Your task to perform on an android device: find which apps use the phone's location Image 0: 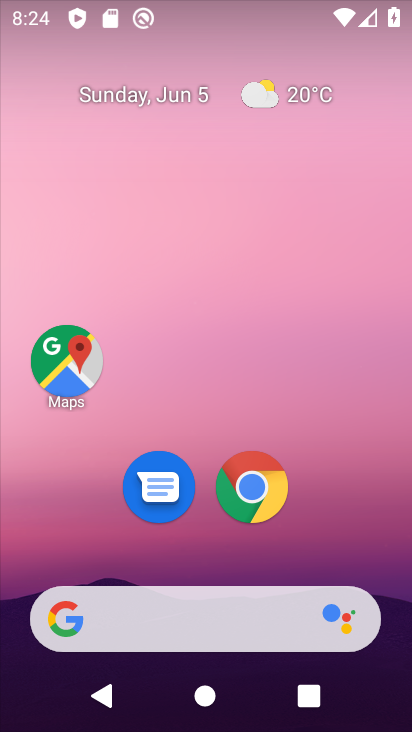
Step 0: drag from (344, 623) to (278, 98)
Your task to perform on an android device: find which apps use the phone's location Image 1: 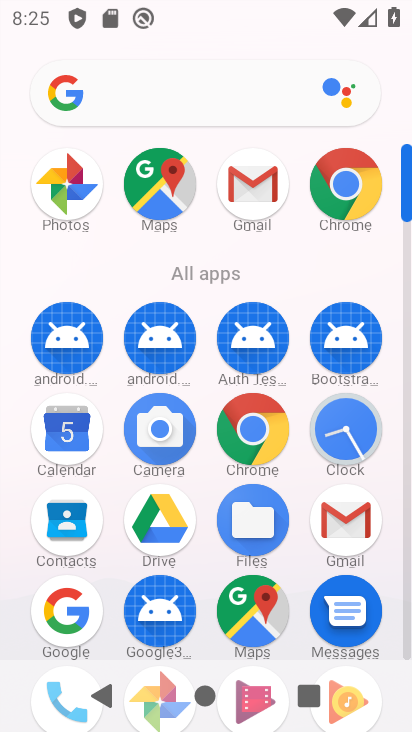
Step 1: drag from (283, 630) to (308, 257)
Your task to perform on an android device: find which apps use the phone's location Image 2: 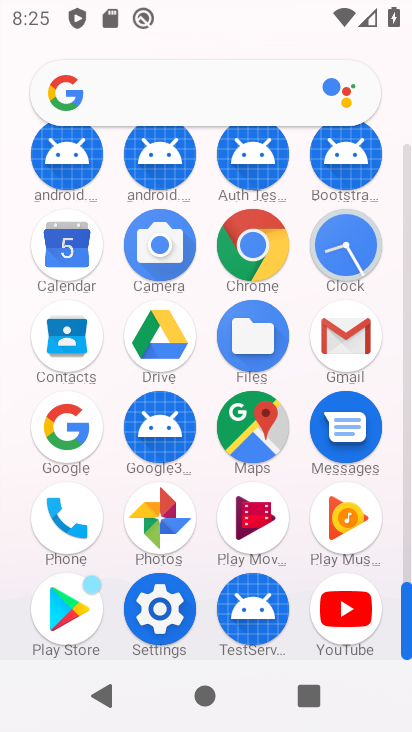
Step 2: click (172, 593)
Your task to perform on an android device: find which apps use the phone's location Image 3: 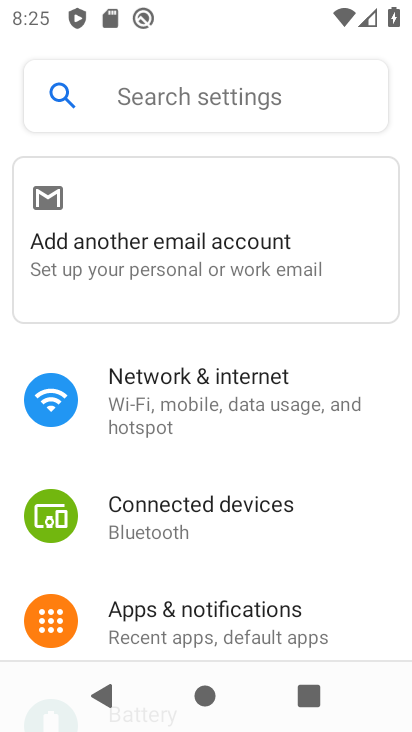
Step 3: drag from (211, 549) to (255, 246)
Your task to perform on an android device: find which apps use the phone's location Image 4: 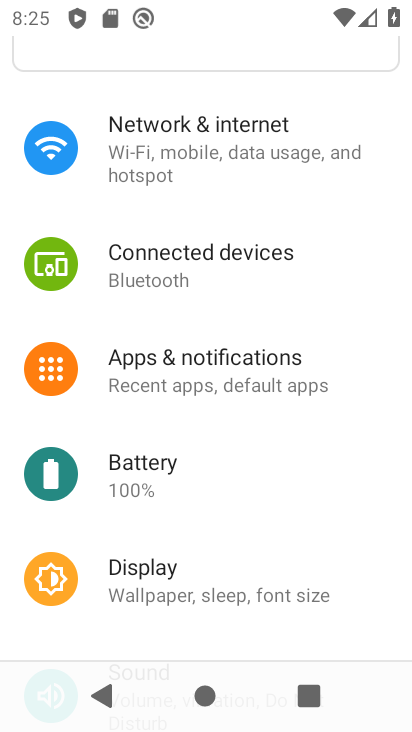
Step 4: drag from (175, 614) to (226, 271)
Your task to perform on an android device: find which apps use the phone's location Image 5: 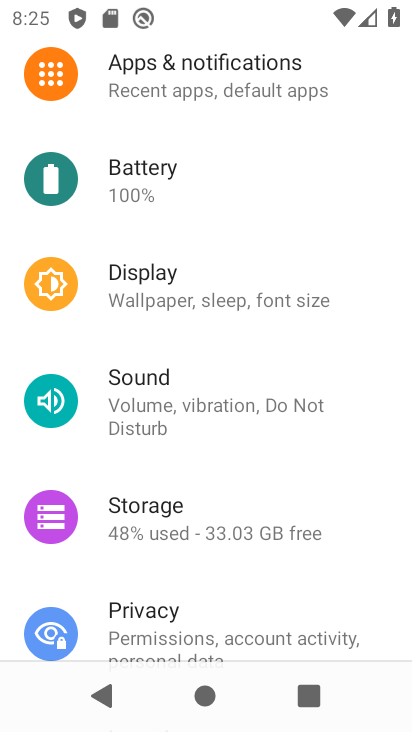
Step 5: drag from (211, 583) to (240, 209)
Your task to perform on an android device: find which apps use the phone's location Image 6: 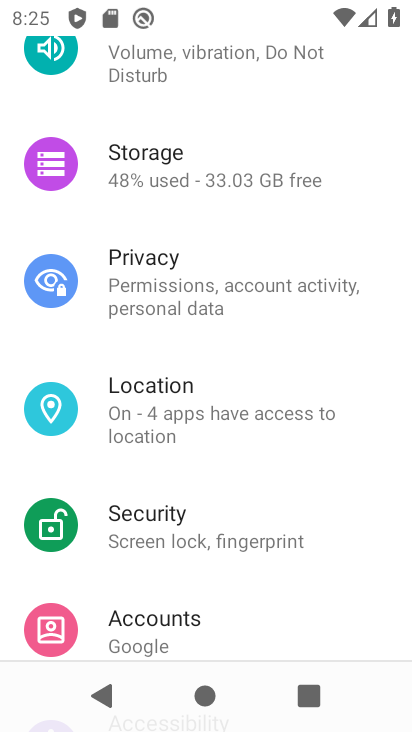
Step 6: click (207, 402)
Your task to perform on an android device: find which apps use the phone's location Image 7: 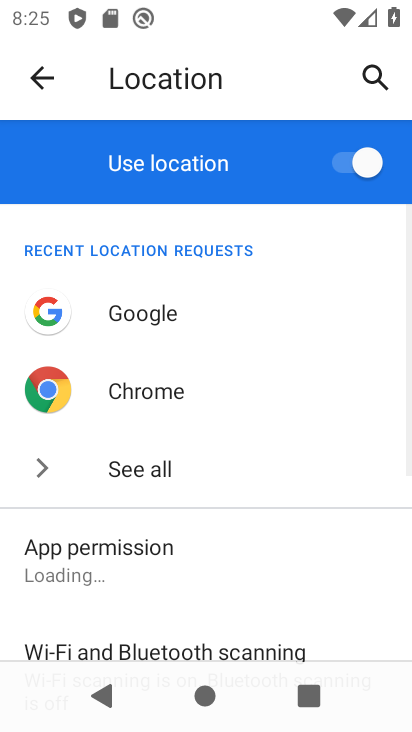
Step 7: task complete